Your task to perform on an android device: Go to sound settings Image 0: 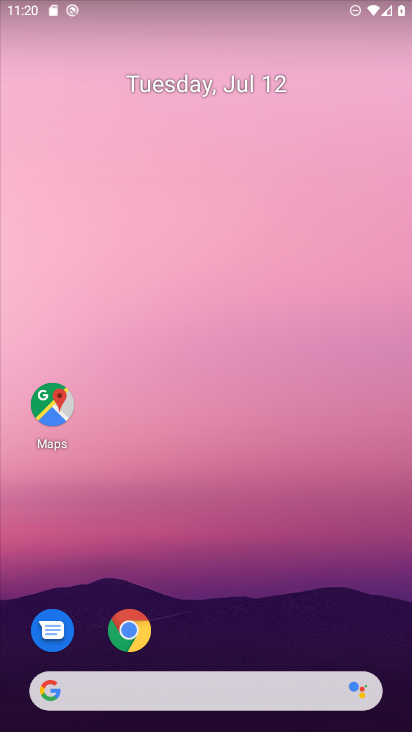
Step 0: drag from (275, 643) to (213, 127)
Your task to perform on an android device: Go to sound settings Image 1: 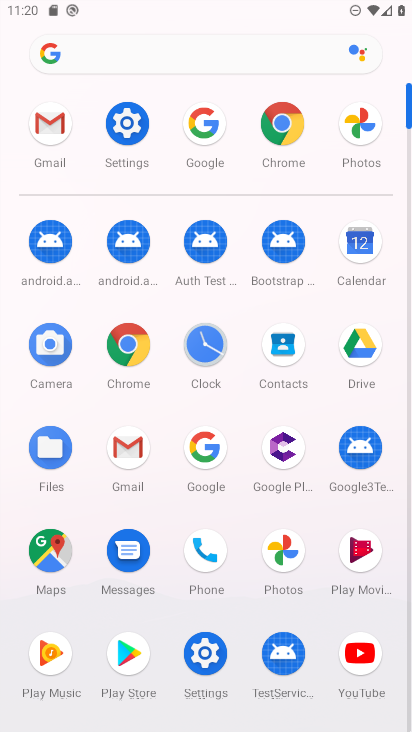
Step 1: click (133, 123)
Your task to perform on an android device: Go to sound settings Image 2: 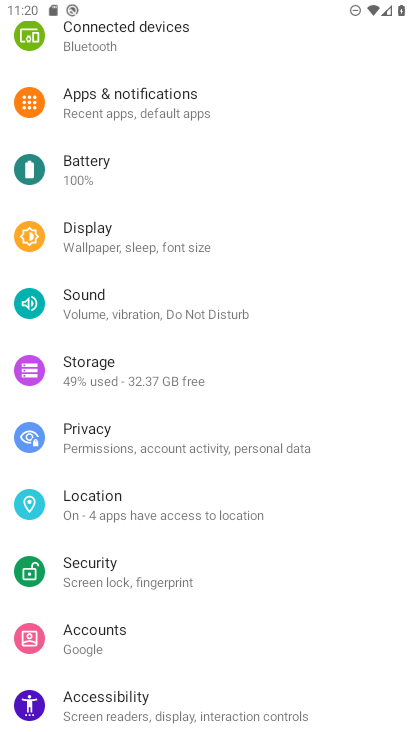
Step 2: click (147, 311)
Your task to perform on an android device: Go to sound settings Image 3: 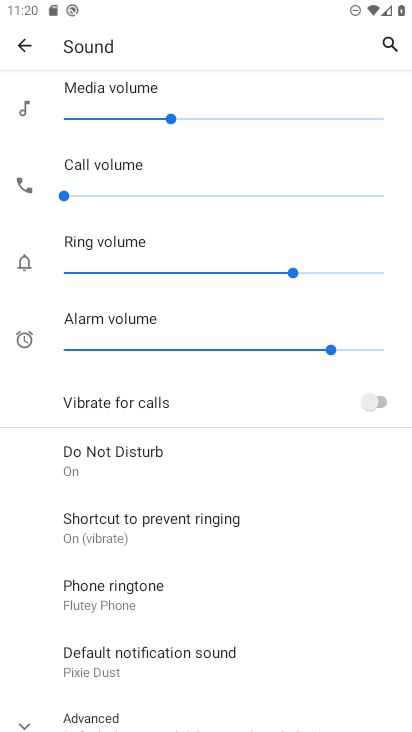
Step 3: task complete